Your task to perform on an android device: Open Chrome and go to settings Image 0: 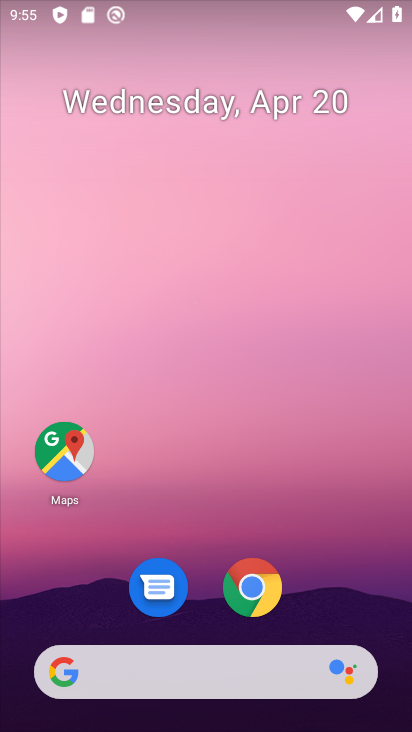
Step 0: click (263, 246)
Your task to perform on an android device: Open Chrome and go to settings Image 1: 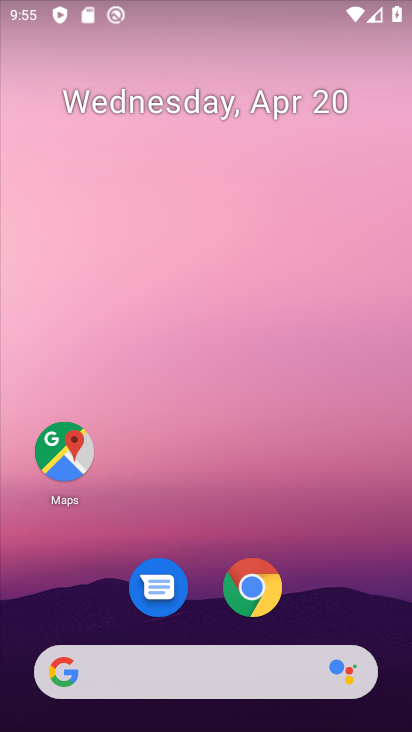
Step 1: drag from (315, 347) to (238, 51)
Your task to perform on an android device: Open Chrome and go to settings Image 2: 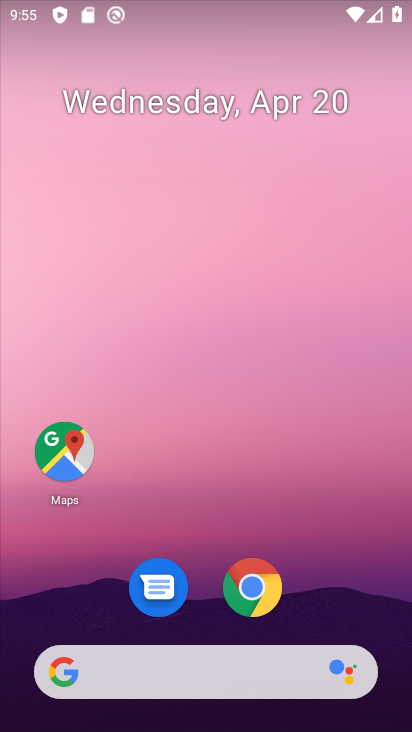
Step 2: drag from (315, 596) to (293, 206)
Your task to perform on an android device: Open Chrome and go to settings Image 3: 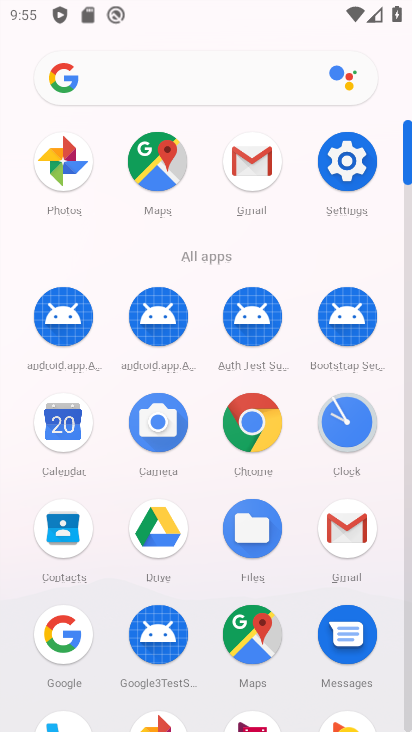
Step 3: click (260, 437)
Your task to perform on an android device: Open Chrome and go to settings Image 4: 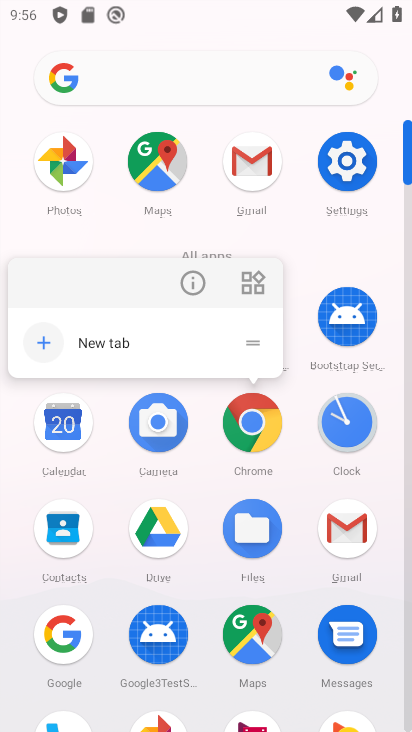
Step 4: click (268, 458)
Your task to perform on an android device: Open Chrome and go to settings Image 5: 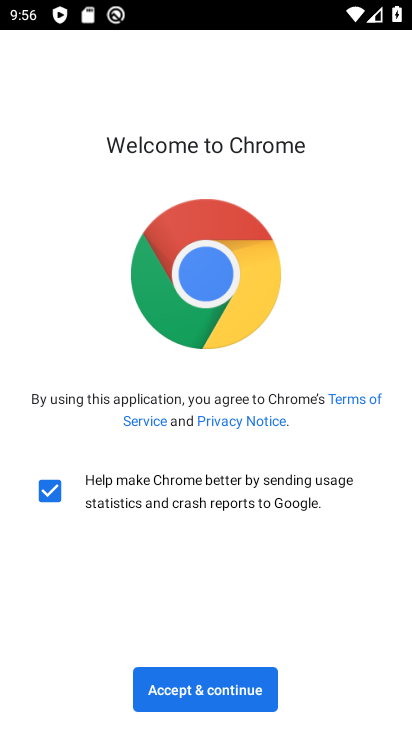
Step 5: click (210, 683)
Your task to perform on an android device: Open Chrome and go to settings Image 6: 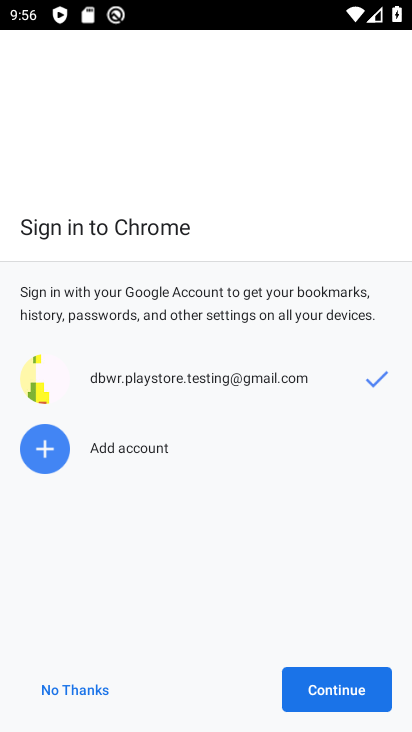
Step 6: click (358, 690)
Your task to perform on an android device: Open Chrome and go to settings Image 7: 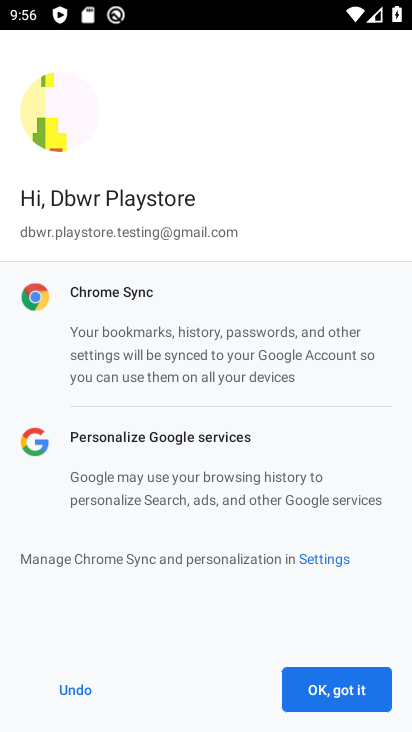
Step 7: click (358, 690)
Your task to perform on an android device: Open Chrome and go to settings Image 8: 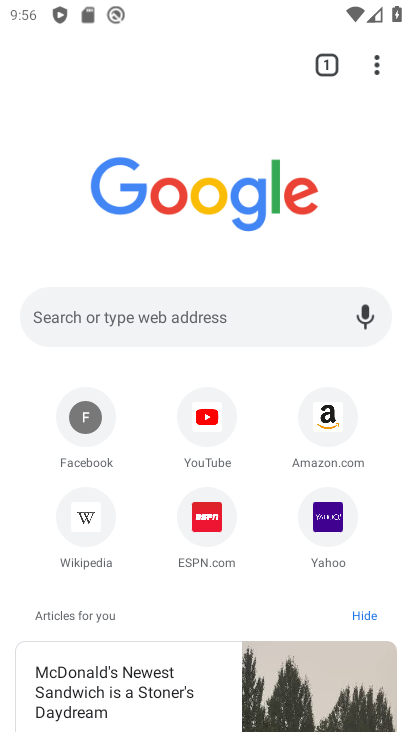
Step 8: click (379, 64)
Your task to perform on an android device: Open Chrome and go to settings Image 9: 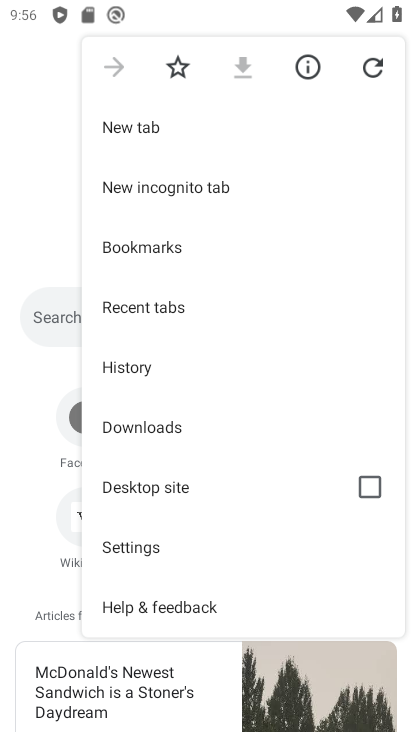
Step 9: click (151, 542)
Your task to perform on an android device: Open Chrome and go to settings Image 10: 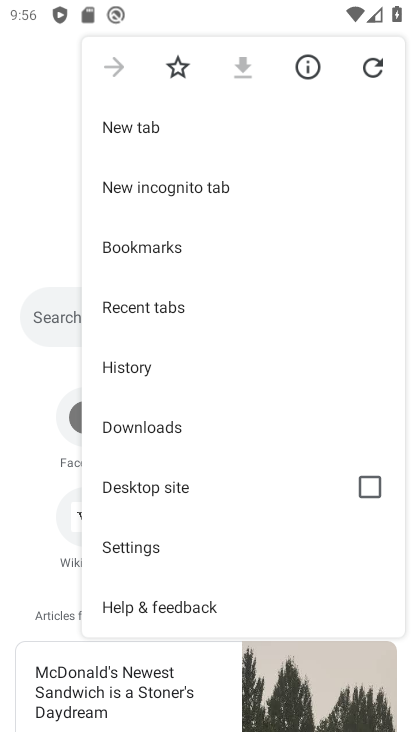
Step 10: click (135, 551)
Your task to perform on an android device: Open Chrome and go to settings Image 11: 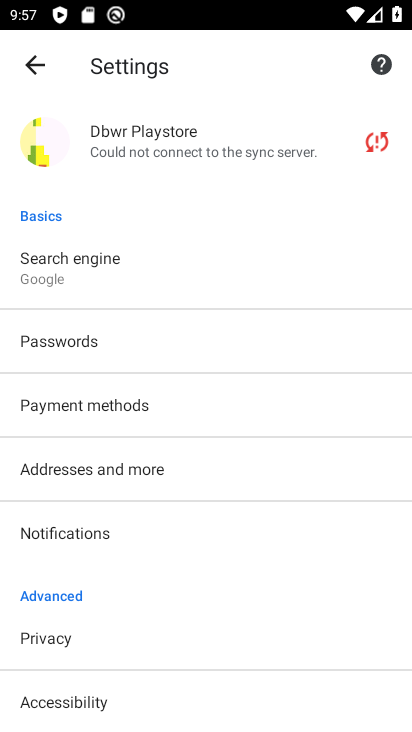
Step 11: task complete